Your task to perform on an android device: Open Google Chrome Image 0: 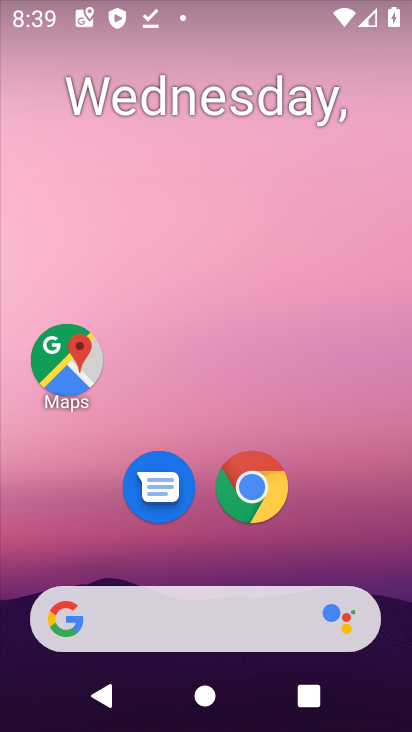
Step 0: drag from (255, 715) to (91, 154)
Your task to perform on an android device: Open Google Chrome Image 1: 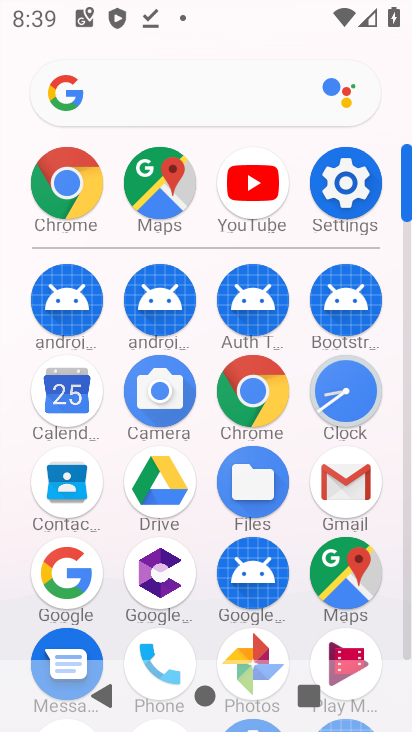
Step 1: click (255, 400)
Your task to perform on an android device: Open Google Chrome Image 2: 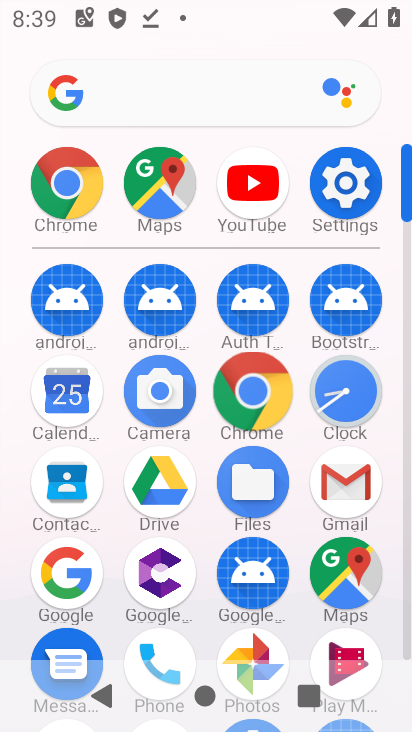
Step 2: click (256, 398)
Your task to perform on an android device: Open Google Chrome Image 3: 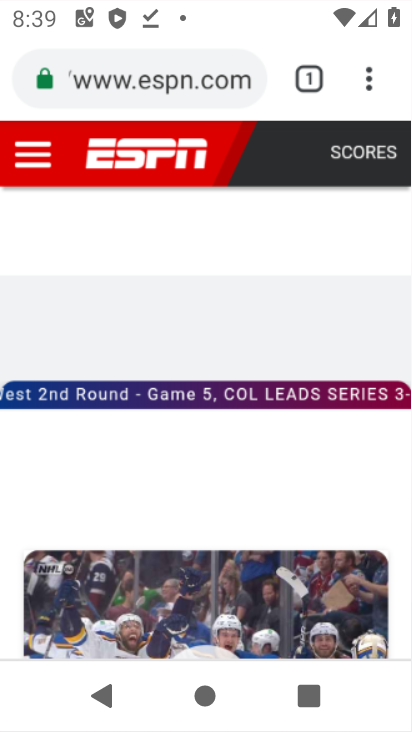
Step 3: click (260, 395)
Your task to perform on an android device: Open Google Chrome Image 4: 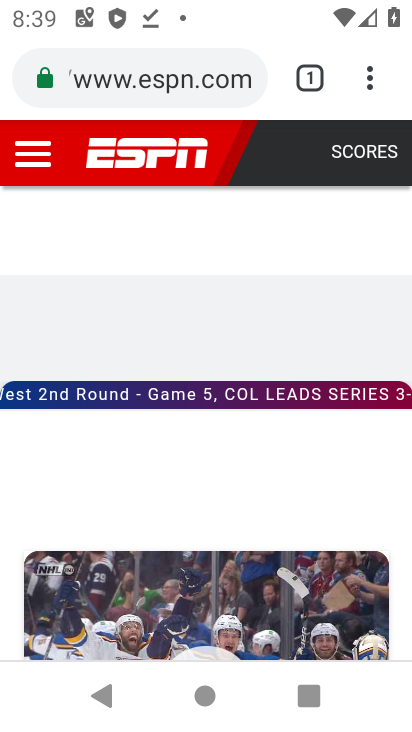
Step 4: drag from (371, 83) to (49, 148)
Your task to perform on an android device: Open Google Chrome Image 5: 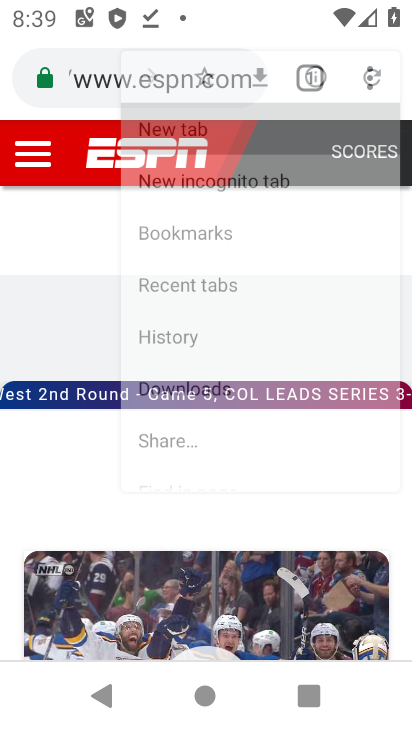
Step 5: click (49, 148)
Your task to perform on an android device: Open Google Chrome Image 6: 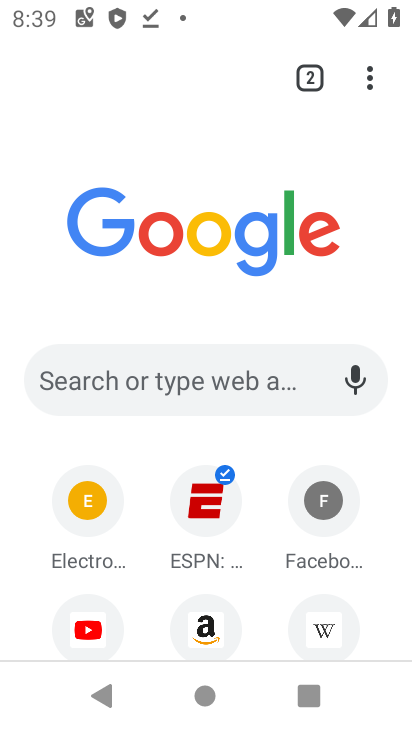
Step 6: task complete